Your task to perform on an android device: Go to Yahoo.com Image 0: 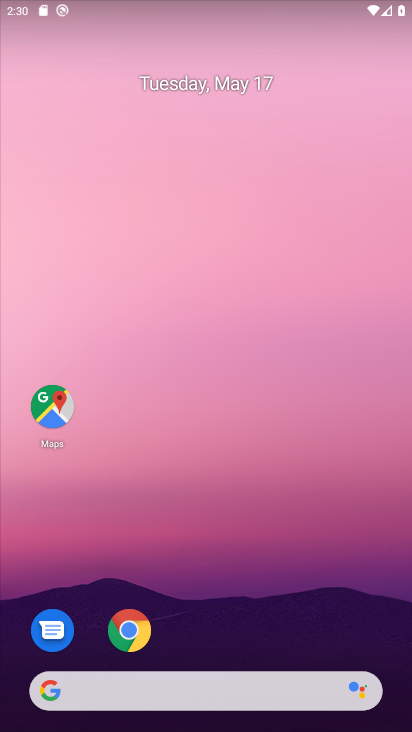
Step 0: drag from (232, 620) to (226, 84)
Your task to perform on an android device: Go to Yahoo.com Image 1: 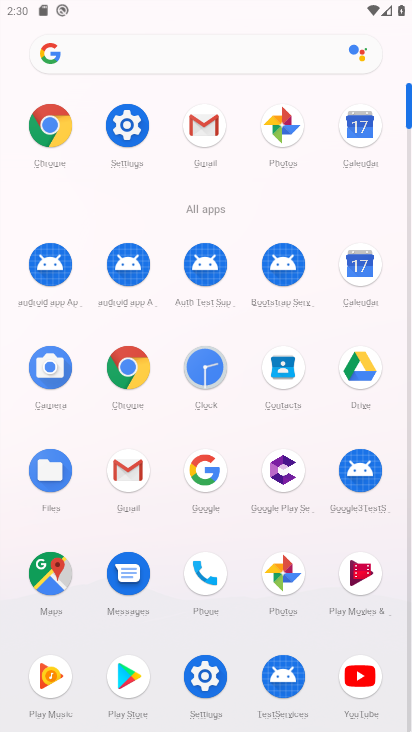
Step 1: click (126, 375)
Your task to perform on an android device: Go to Yahoo.com Image 2: 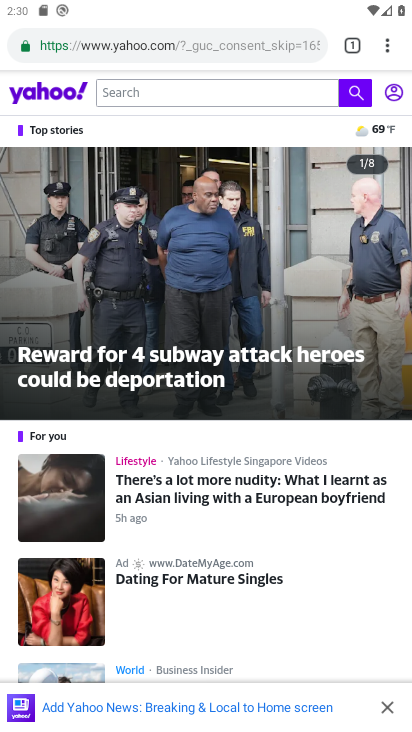
Step 2: task complete